Your task to perform on an android device: Add "logitech g pro" to the cart on ebay Image 0: 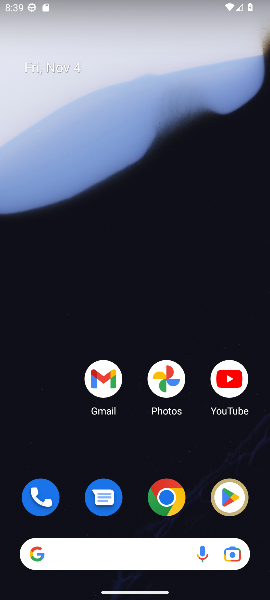
Step 0: click (162, 500)
Your task to perform on an android device: Add "logitech g pro" to the cart on ebay Image 1: 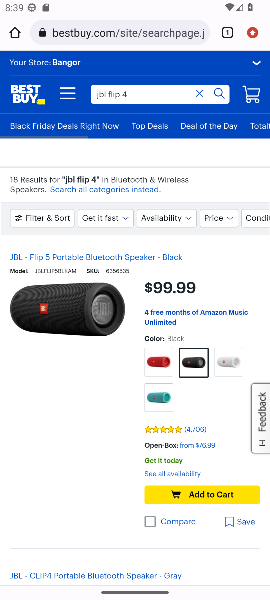
Step 1: click (111, 34)
Your task to perform on an android device: Add "logitech g pro" to the cart on ebay Image 2: 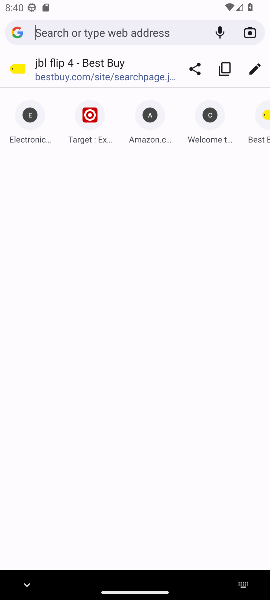
Step 2: type "ebay.com"
Your task to perform on an android device: Add "logitech g pro" to the cart on ebay Image 3: 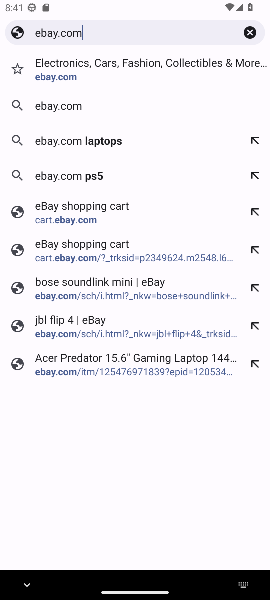
Step 3: click (76, 77)
Your task to perform on an android device: Add "logitech g pro" to the cart on ebay Image 4: 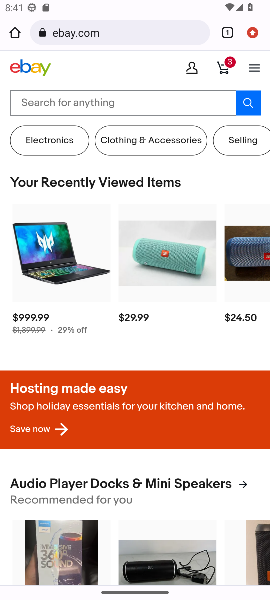
Step 4: click (101, 110)
Your task to perform on an android device: Add "logitech g pro" to the cart on ebay Image 5: 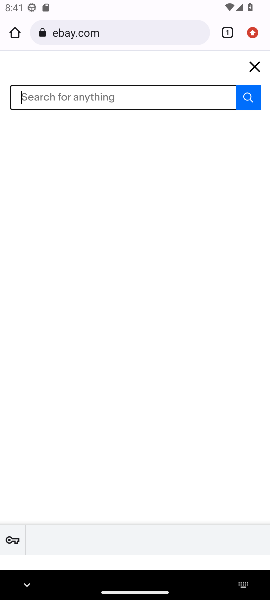
Step 5: type "logitech g pro"
Your task to perform on an android device: Add "logitech g pro" to the cart on ebay Image 6: 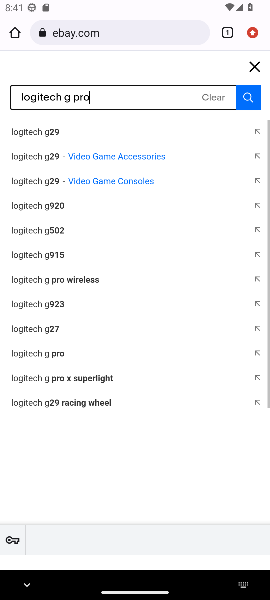
Step 6: click (30, 357)
Your task to perform on an android device: Add "logitech g pro" to the cart on ebay Image 7: 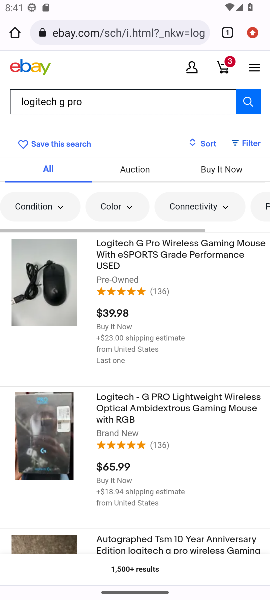
Step 7: click (70, 278)
Your task to perform on an android device: Add "logitech g pro" to the cart on ebay Image 8: 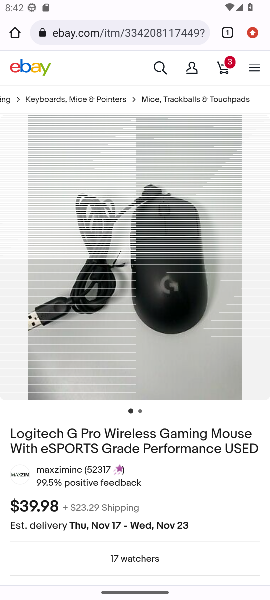
Step 8: drag from (98, 435) to (104, 138)
Your task to perform on an android device: Add "logitech g pro" to the cart on ebay Image 9: 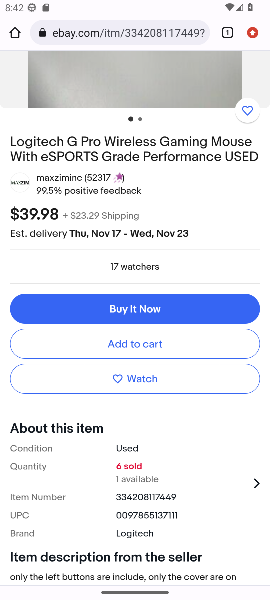
Step 9: click (105, 345)
Your task to perform on an android device: Add "logitech g pro" to the cart on ebay Image 10: 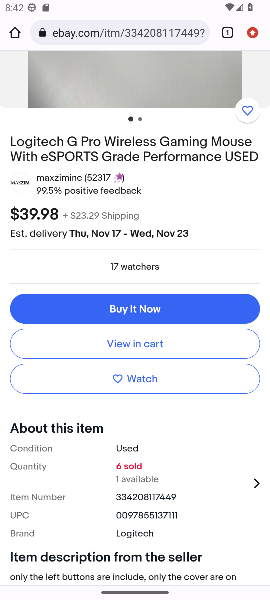
Step 10: task complete